Your task to perform on an android device: Do I have any events this weekend? Image 0: 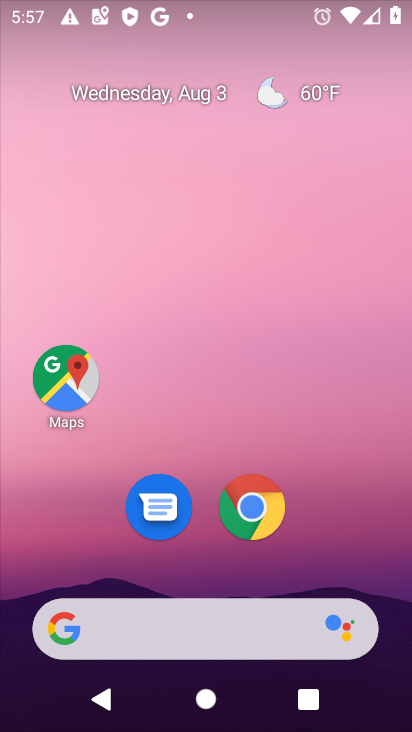
Step 0: drag from (357, 479) to (379, 47)
Your task to perform on an android device: Do I have any events this weekend? Image 1: 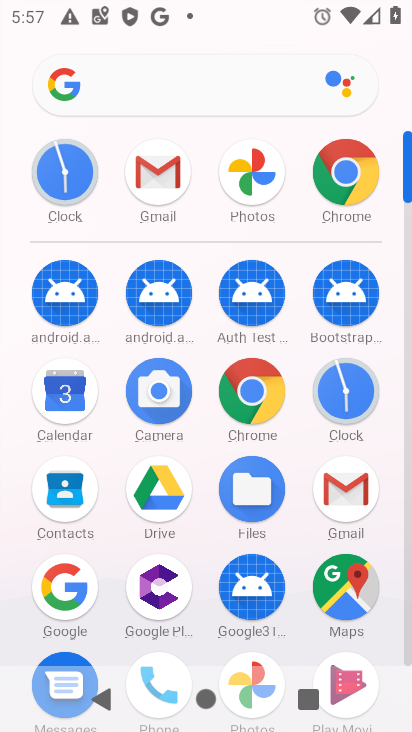
Step 1: drag from (293, 539) to (283, 141)
Your task to perform on an android device: Do I have any events this weekend? Image 2: 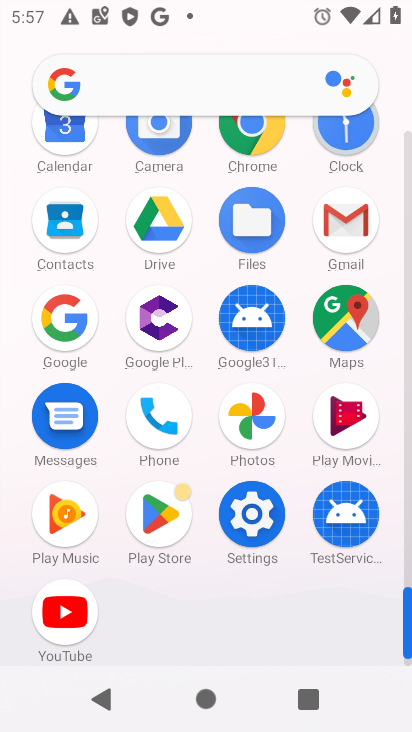
Step 2: drag from (295, 261) to (274, 554)
Your task to perform on an android device: Do I have any events this weekend? Image 3: 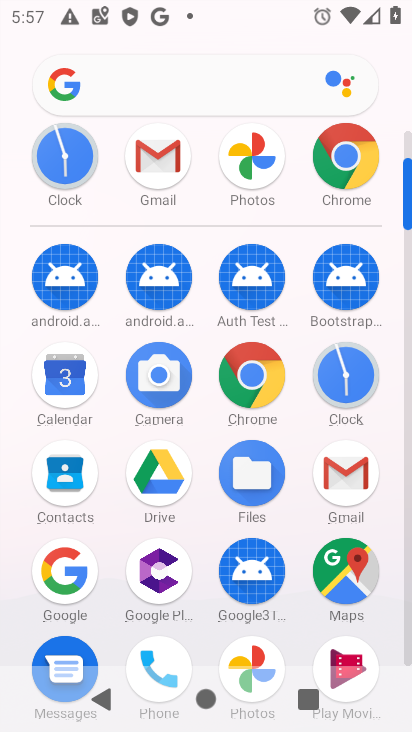
Step 3: click (68, 386)
Your task to perform on an android device: Do I have any events this weekend? Image 4: 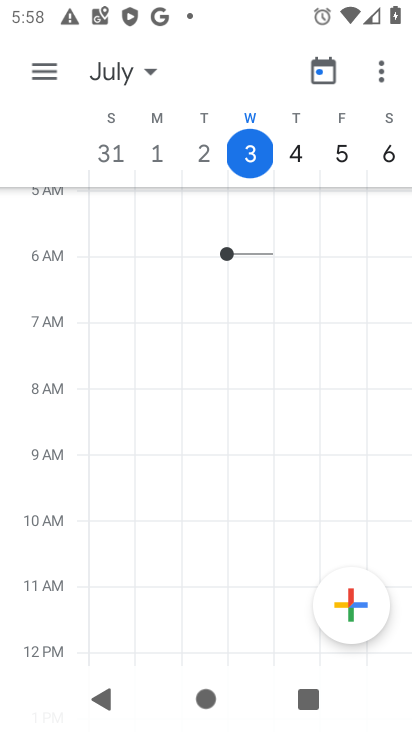
Step 4: click (380, 145)
Your task to perform on an android device: Do I have any events this weekend? Image 5: 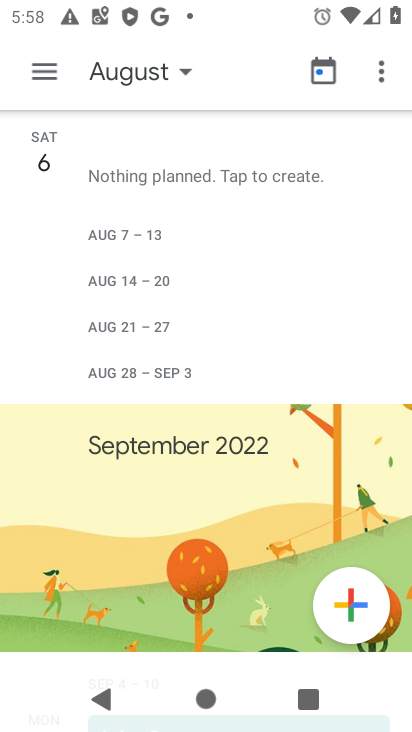
Step 5: task complete